Your task to perform on an android device: turn on translation in the chrome app Image 0: 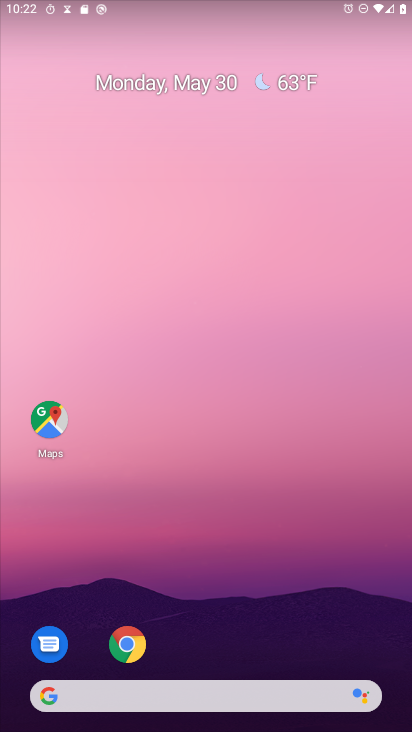
Step 0: click (127, 647)
Your task to perform on an android device: turn on translation in the chrome app Image 1: 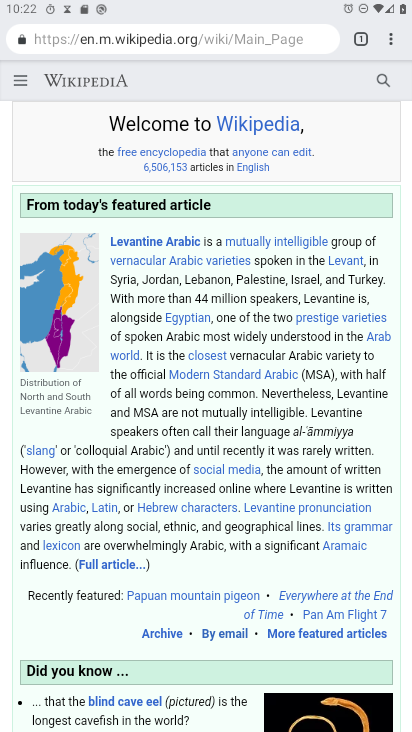
Step 1: click (384, 36)
Your task to perform on an android device: turn on translation in the chrome app Image 2: 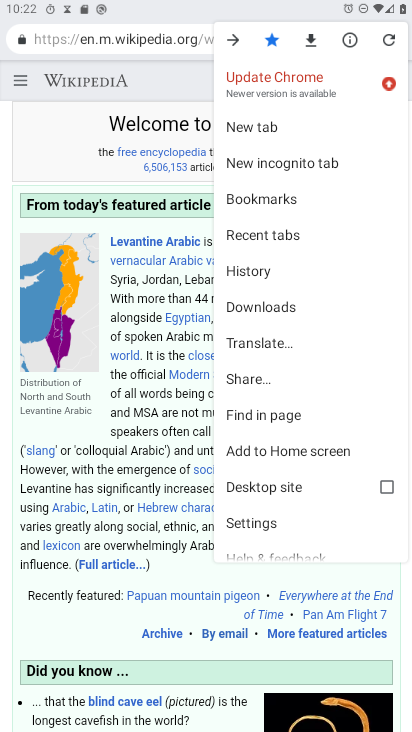
Step 2: drag from (275, 518) to (262, 255)
Your task to perform on an android device: turn on translation in the chrome app Image 3: 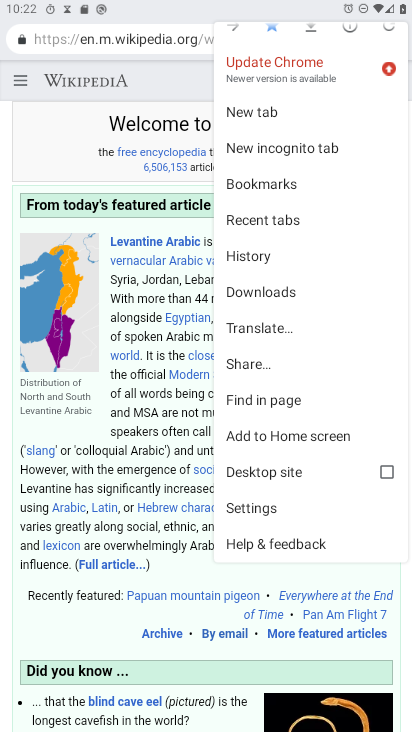
Step 3: click (269, 507)
Your task to perform on an android device: turn on translation in the chrome app Image 4: 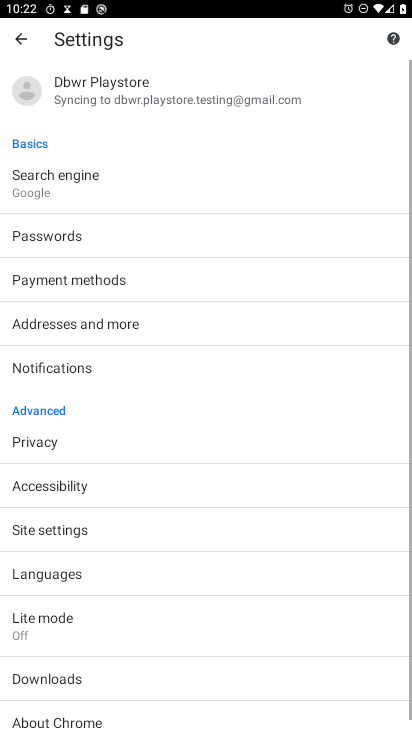
Step 4: drag from (160, 614) to (163, 329)
Your task to perform on an android device: turn on translation in the chrome app Image 5: 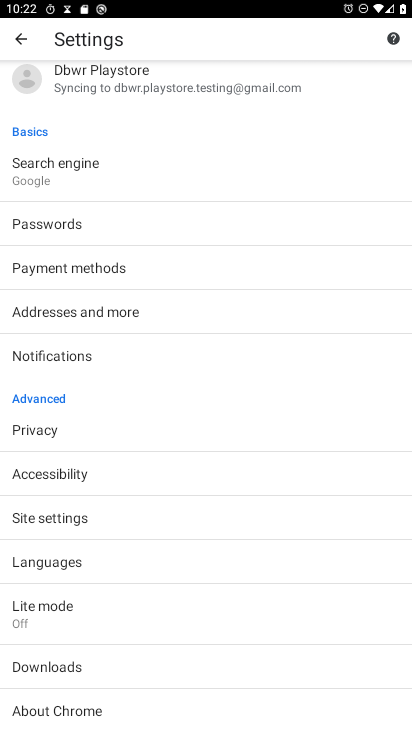
Step 5: click (118, 560)
Your task to perform on an android device: turn on translation in the chrome app Image 6: 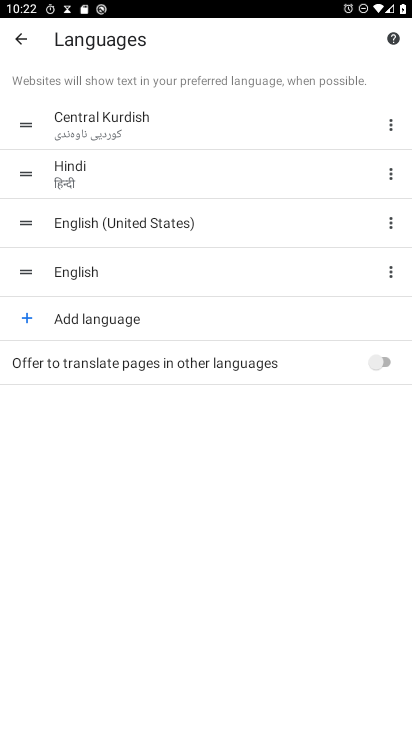
Step 6: click (375, 367)
Your task to perform on an android device: turn on translation in the chrome app Image 7: 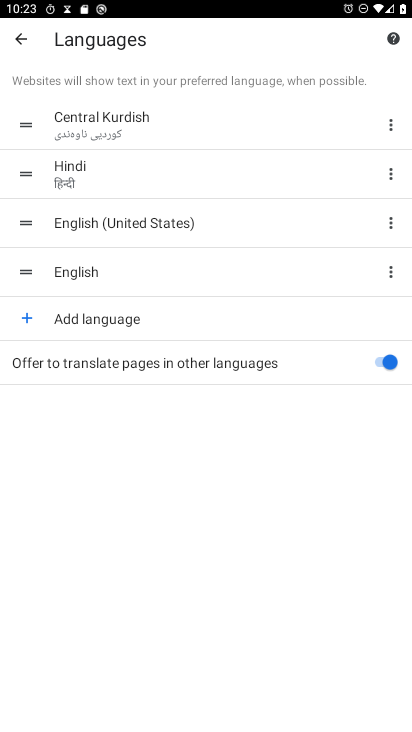
Step 7: task complete